Your task to perform on an android device: Do I have any events tomorrow? Image 0: 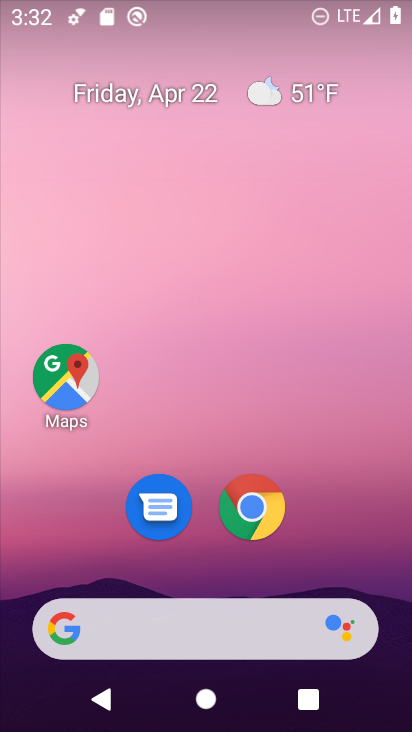
Step 0: drag from (196, 582) to (225, 45)
Your task to perform on an android device: Do I have any events tomorrow? Image 1: 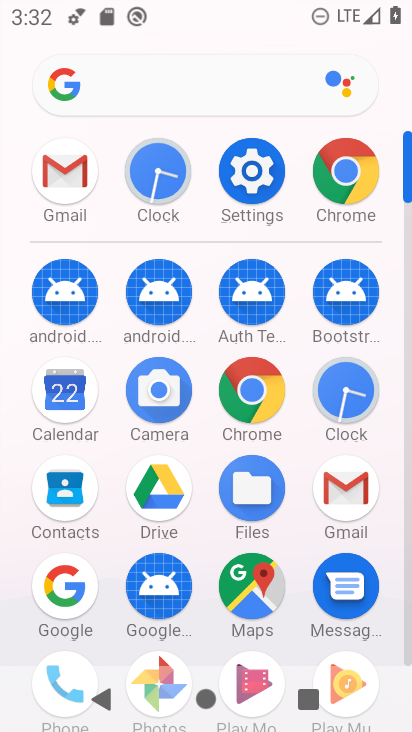
Step 1: click (69, 409)
Your task to perform on an android device: Do I have any events tomorrow? Image 2: 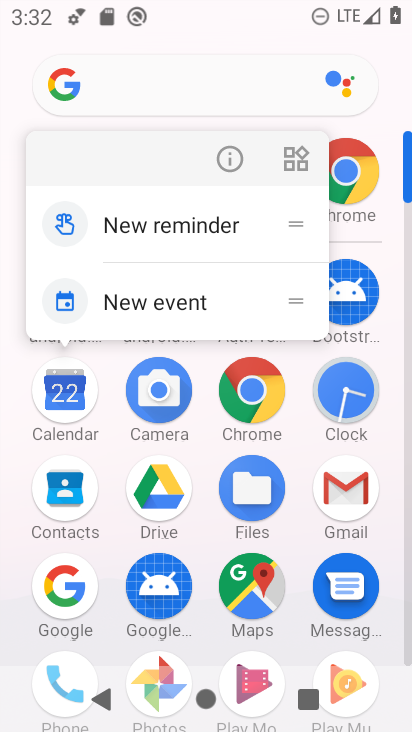
Step 2: click (77, 394)
Your task to perform on an android device: Do I have any events tomorrow? Image 3: 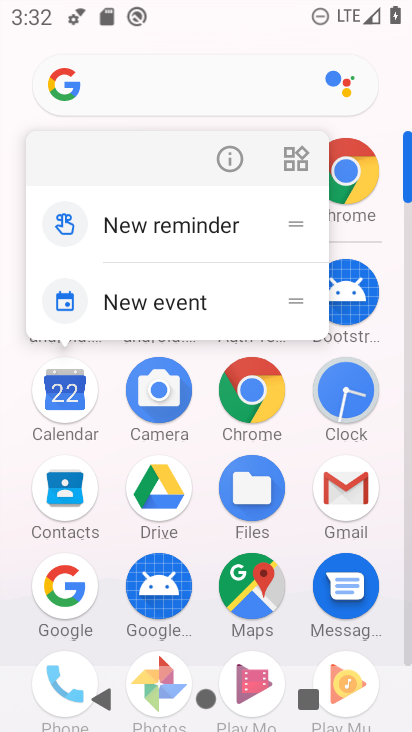
Step 3: click (54, 400)
Your task to perform on an android device: Do I have any events tomorrow? Image 4: 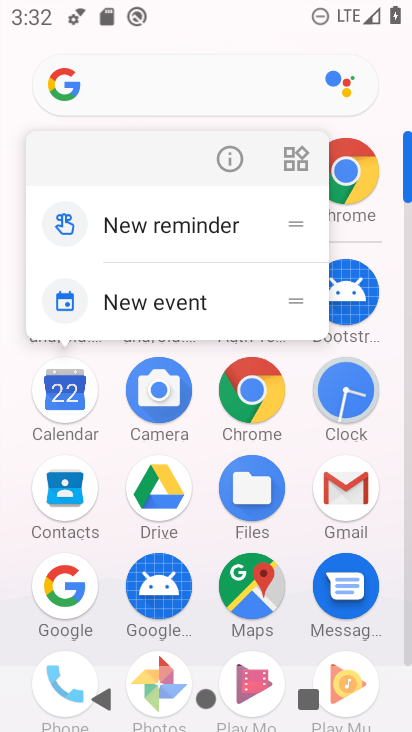
Step 4: click (54, 400)
Your task to perform on an android device: Do I have any events tomorrow? Image 5: 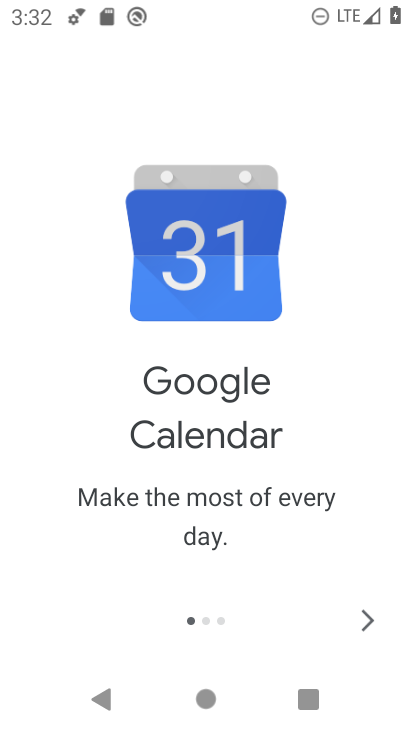
Step 5: click (368, 614)
Your task to perform on an android device: Do I have any events tomorrow? Image 6: 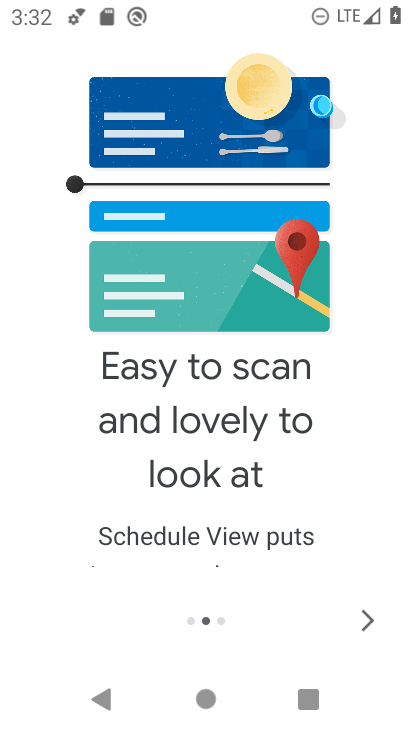
Step 6: click (365, 620)
Your task to perform on an android device: Do I have any events tomorrow? Image 7: 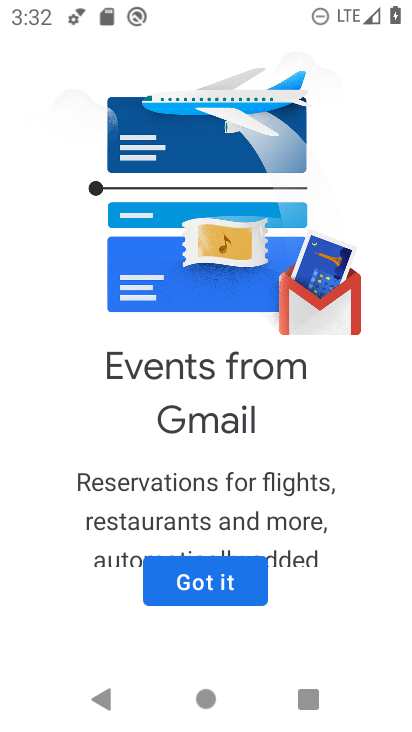
Step 7: click (365, 620)
Your task to perform on an android device: Do I have any events tomorrow? Image 8: 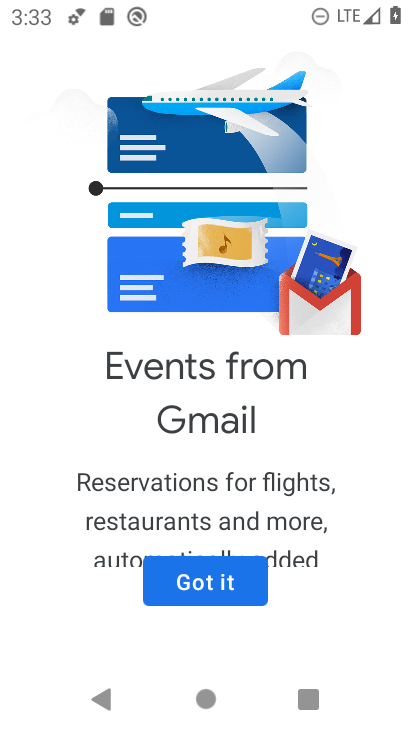
Step 8: click (194, 592)
Your task to perform on an android device: Do I have any events tomorrow? Image 9: 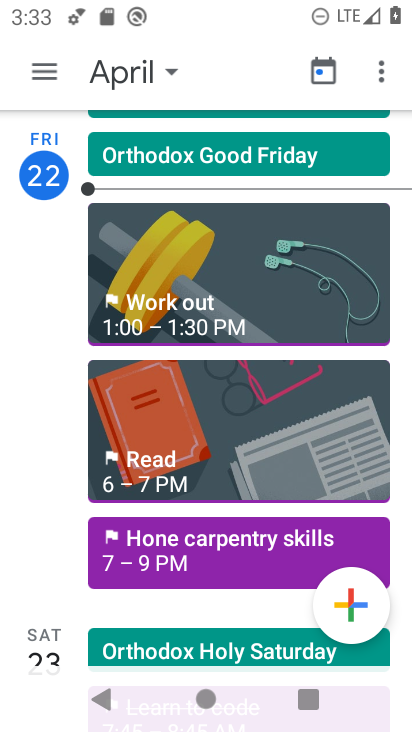
Step 9: drag from (218, 564) to (210, 178)
Your task to perform on an android device: Do I have any events tomorrow? Image 10: 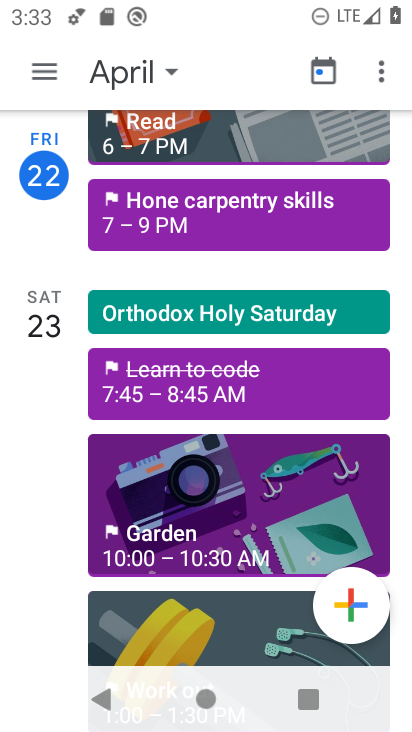
Step 10: click (51, 322)
Your task to perform on an android device: Do I have any events tomorrow? Image 11: 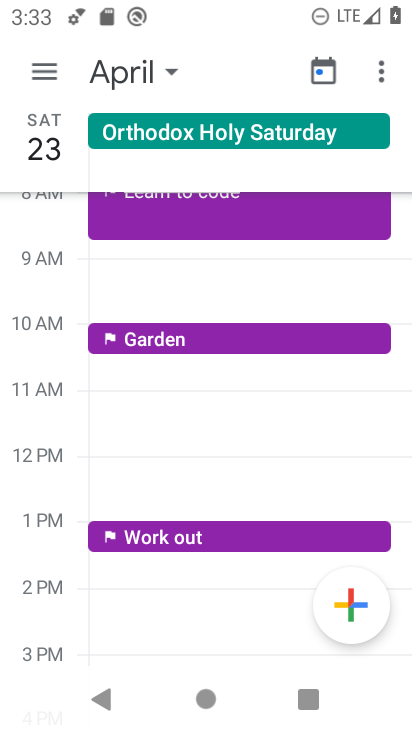
Step 11: task complete